Your task to perform on an android device: Open Amazon Image 0: 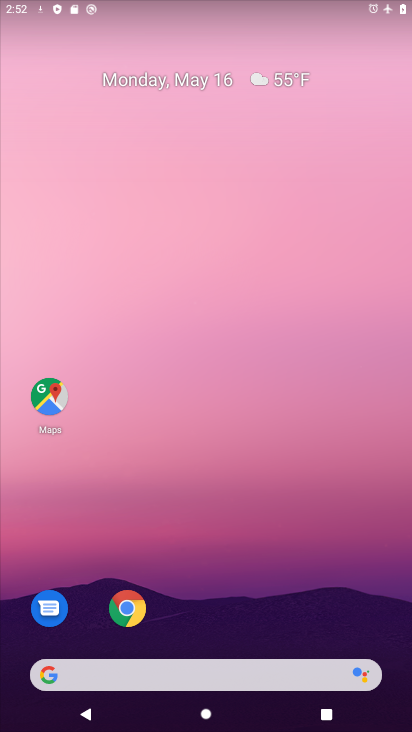
Step 0: click (138, 606)
Your task to perform on an android device: Open Amazon Image 1: 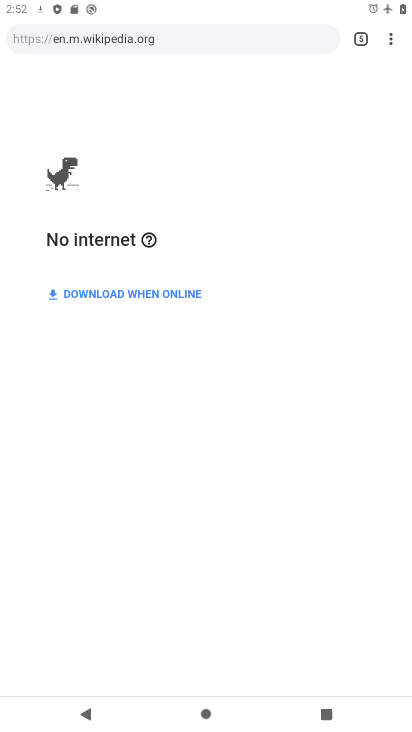
Step 1: task complete